Your task to perform on an android device: toggle data saver in the chrome app Image 0: 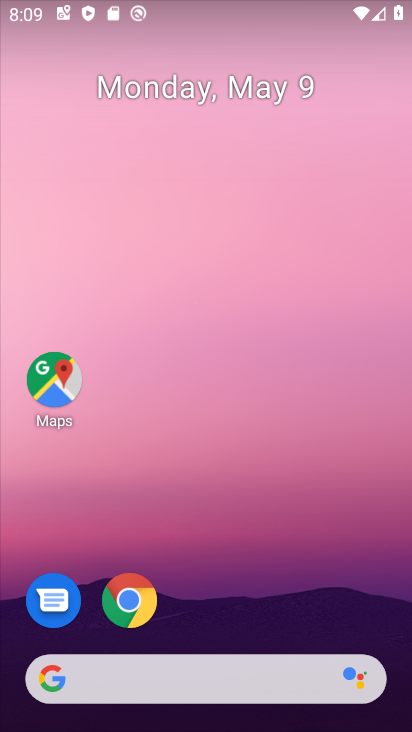
Step 0: drag from (253, 500) to (149, 18)
Your task to perform on an android device: toggle data saver in the chrome app Image 1: 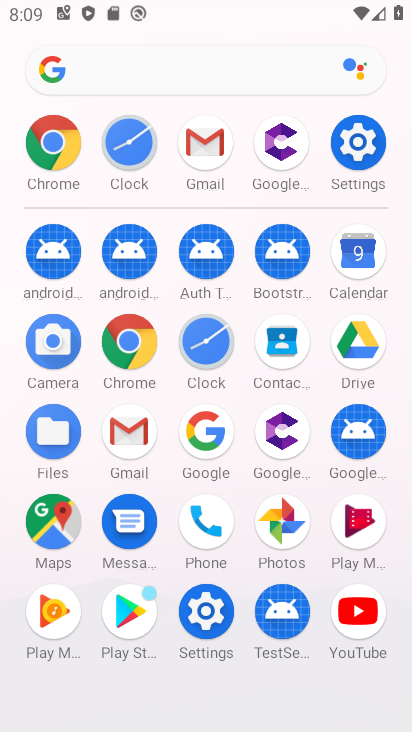
Step 1: drag from (14, 551) to (19, 269)
Your task to perform on an android device: toggle data saver in the chrome app Image 2: 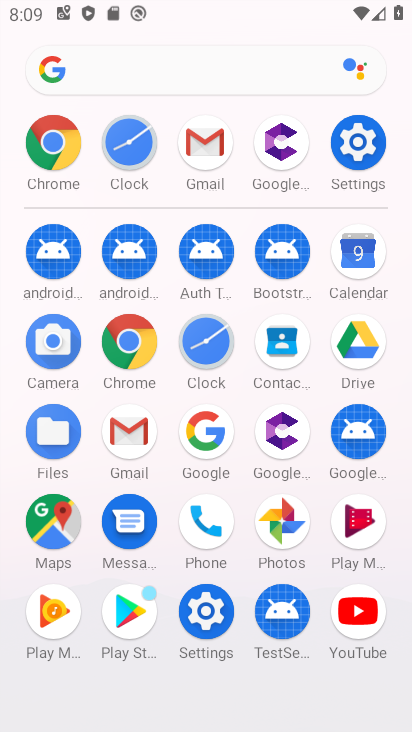
Step 2: click (127, 339)
Your task to perform on an android device: toggle data saver in the chrome app Image 3: 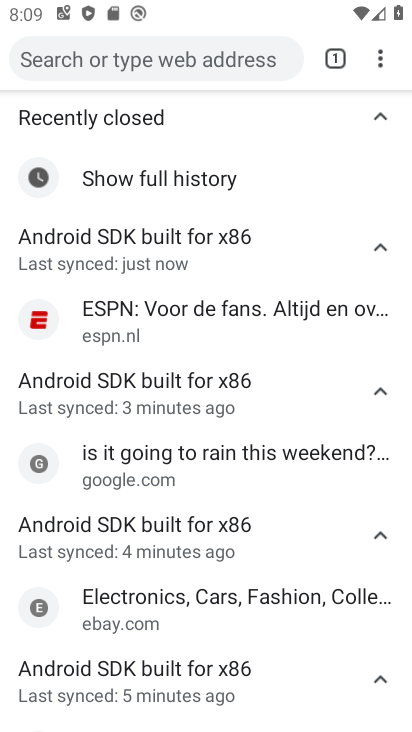
Step 3: drag from (379, 58) to (179, 495)
Your task to perform on an android device: toggle data saver in the chrome app Image 4: 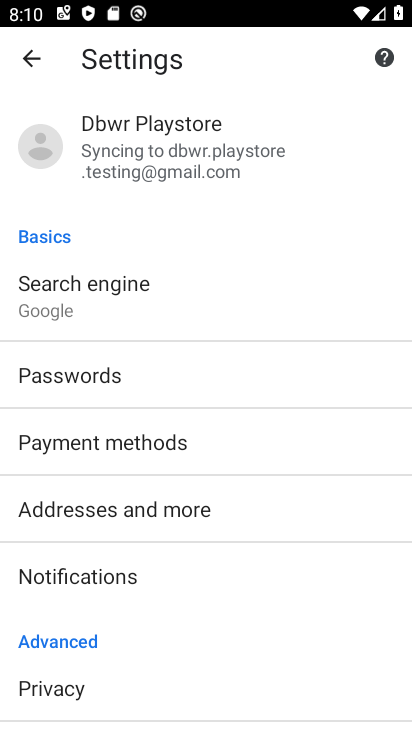
Step 4: drag from (222, 589) to (254, 186)
Your task to perform on an android device: toggle data saver in the chrome app Image 5: 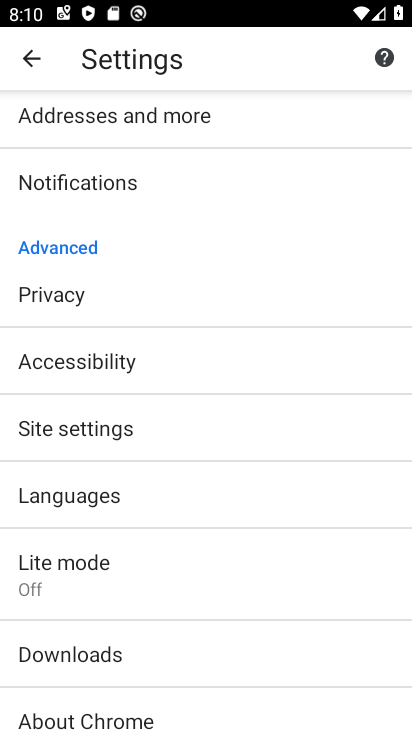
Step 5: click (133, 558)
Your task to perform on an android device: toggle data saver in the chrome app Image 6: 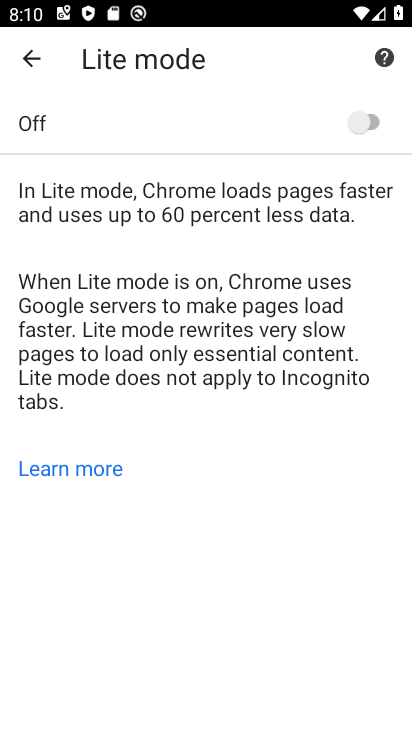
Step 6: click (360, 108)
Your task to perform on an android device: toggle data saver in the chrome app Image 7: 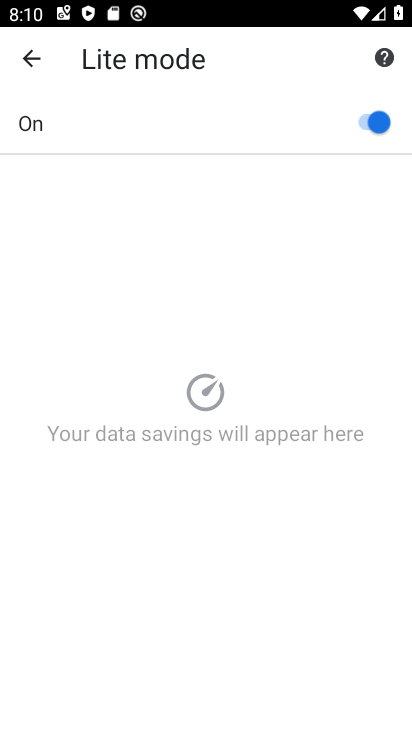
Step 7: task complete